Your task to perform on an android device: delete a single message in the gmail app Image 0: 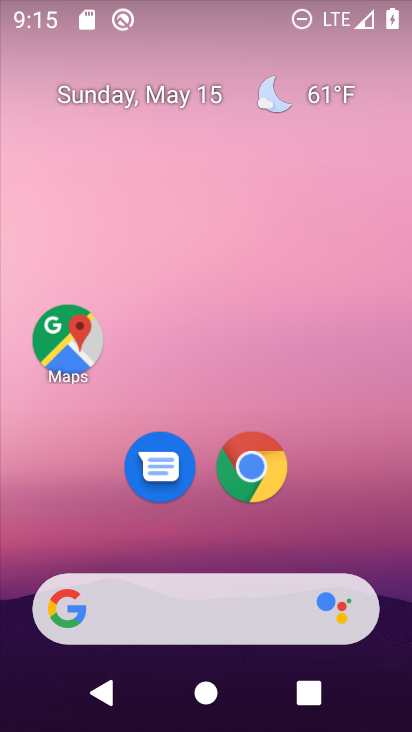
Step 0: drag from (214, 528) to (269, 24)
Your task to perform on an android device: delete a single message in the gmail app Image 1: 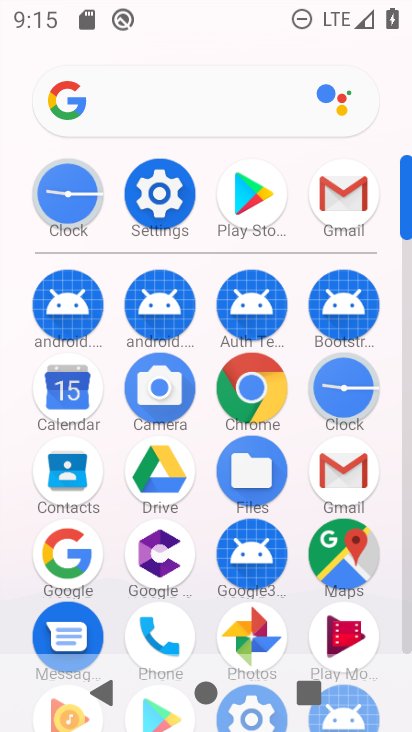
Step 1: click (337, 188)
Your task to perform on an android device: delete a single message in the gmail app Image 2: 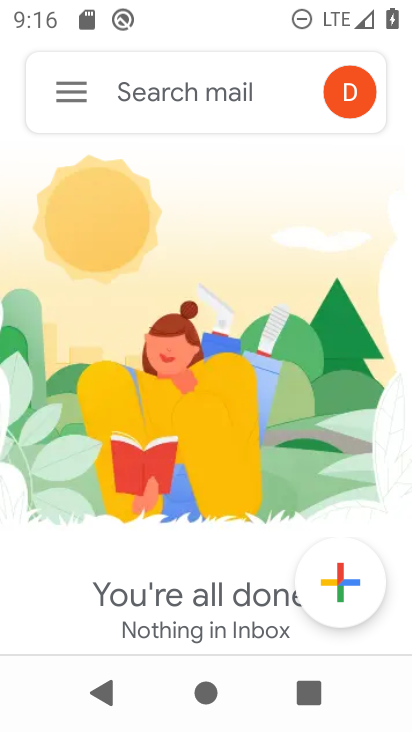
Step 2: task complete